Your task to perform on an android device: Go to CNN.com Image 0: 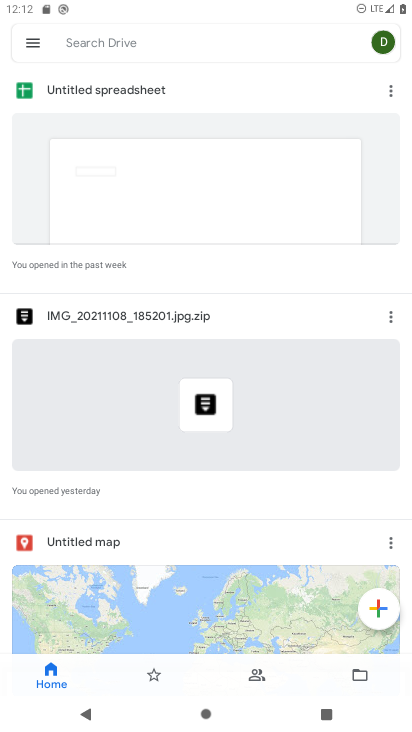
Step 0: press home button
Your task to perform on an android device: Go to CNN.com Image 1: 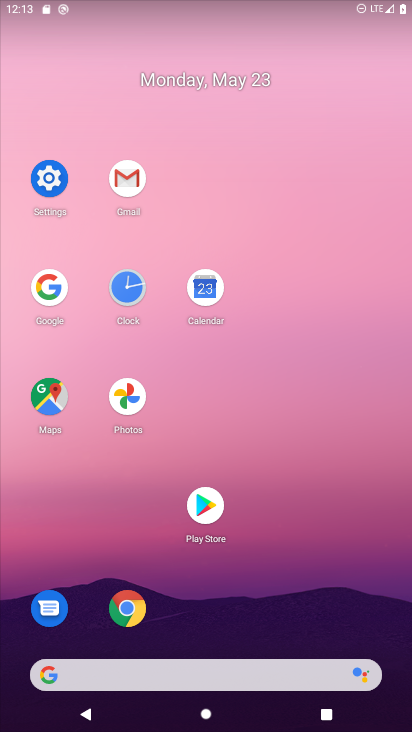
Step 1: click (126, 599)
Your task to perform on an android device: Go to CNN.com Image 2: 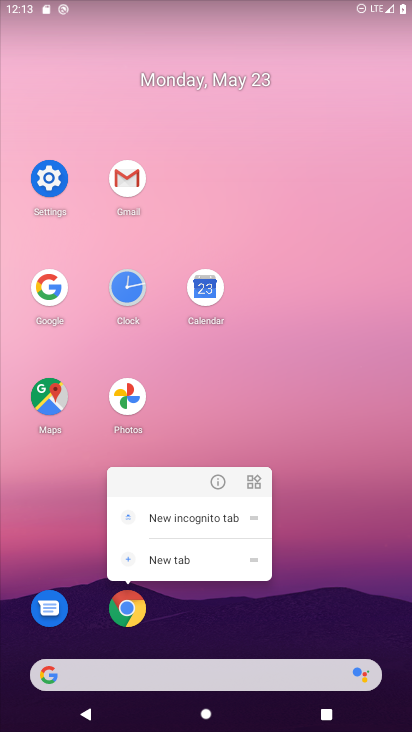
Step 2: click (130, 614)
Your task to perform on an android device: Go to CNN.com Image 3: 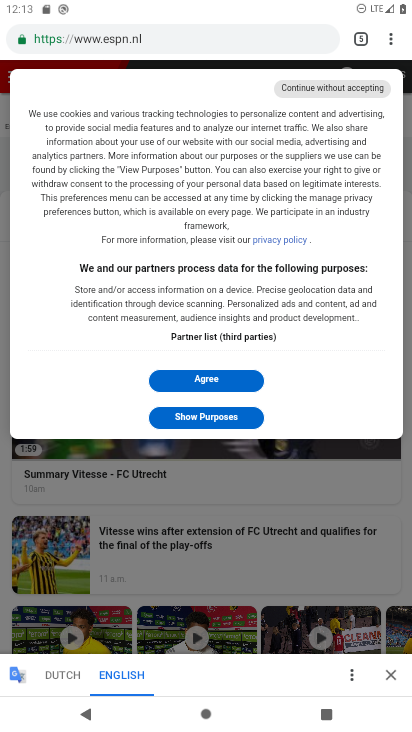
Step 3: click (361, 42)
Your task to perform on an android device: Go to CNN.com Image 4: 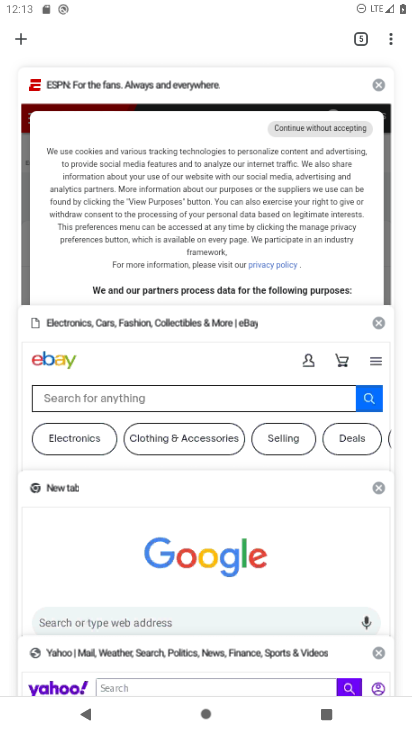
Step 4: drag from (248, 200) to (221, 504)
Your task to perform on an android device: Go to CNN.com Image 5: 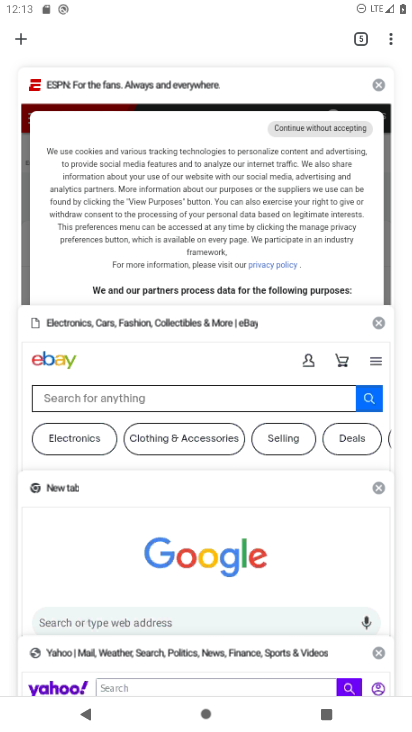
Step 5: click (25, 40)
Your task to perform on an android device: Go to CNN.com Image 6: 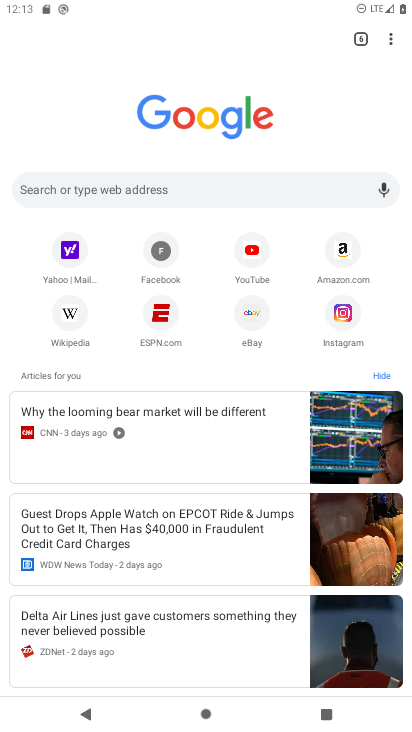
Step 6: click (185, 188)
Your task to perform on an android device: Go to CNN.com Image 7: 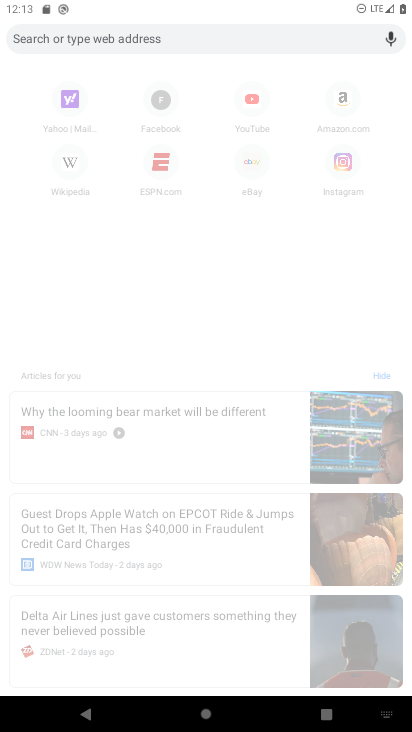
Step 7: type "cnn"
Your task to perform on an android device: Go to CNN.com Image 8: 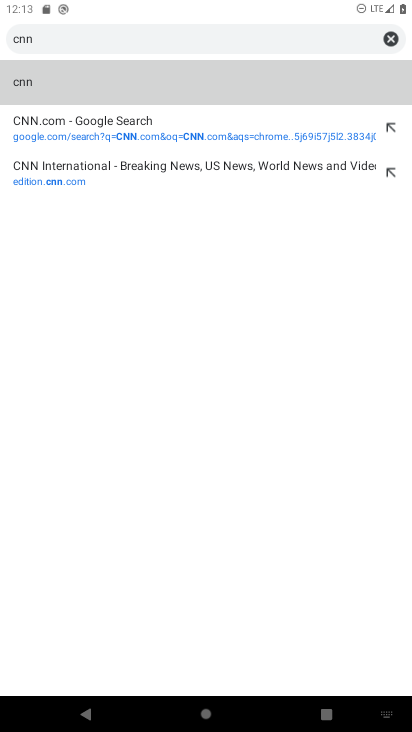
Step 8: click (151, 115)
Your task to perform on an android device: Go to CNN.com Image 9: 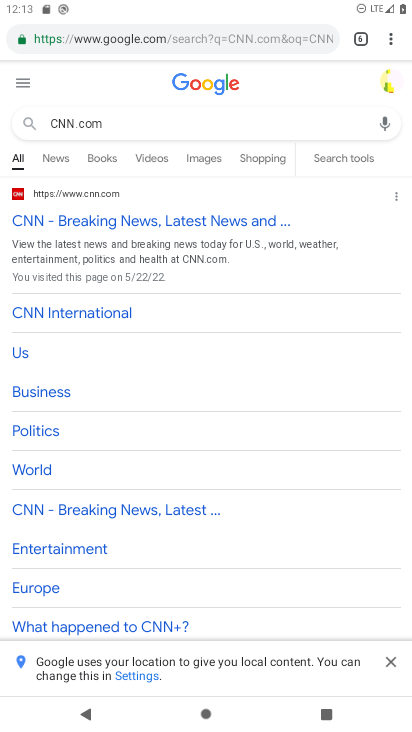
Step 9: click (121, 220)
Your task to perform on an android device: Go to CNN.com Image 10: 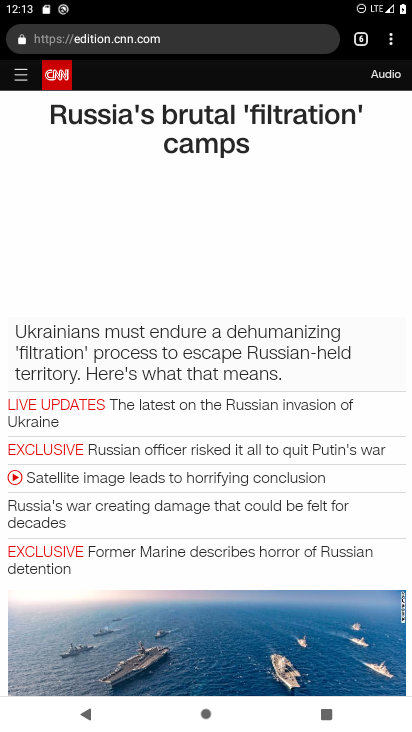
Step 10: task complete